Your task to perform on an android device: Open Google Maps and go to "Timeline" Image 0: 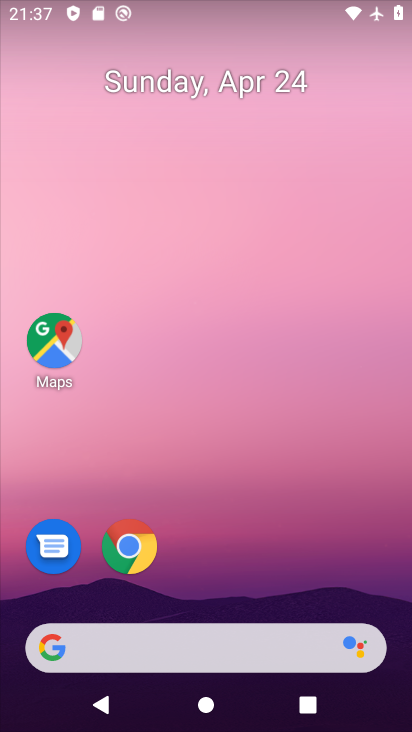
Step 0: click (289, 235)
Your task to perform on an android device: Open Google Maps and go to "Timeline" Image 1: 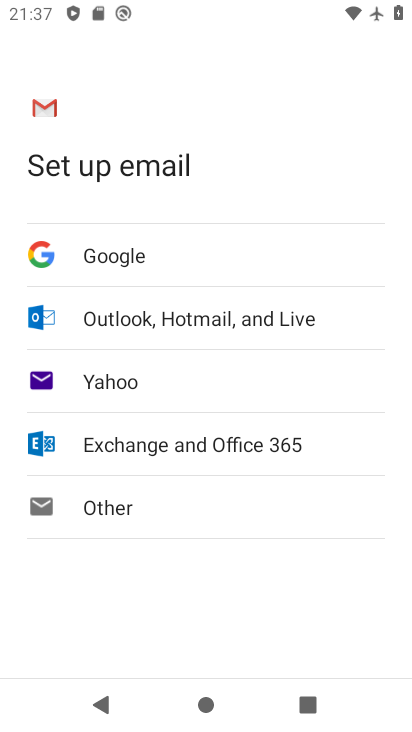
Step 1: press home button
Your task to perform on an android device: Open Google Maps and go to "Timeline" Image 2: 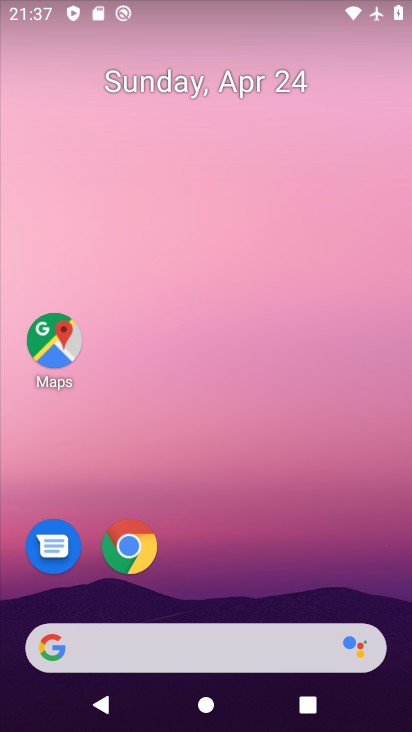
Step 2: drag from (213, 590) to (250, 258)
Your task to perform on an android device: Open Google Maps and go to "Timeline" Image 3: 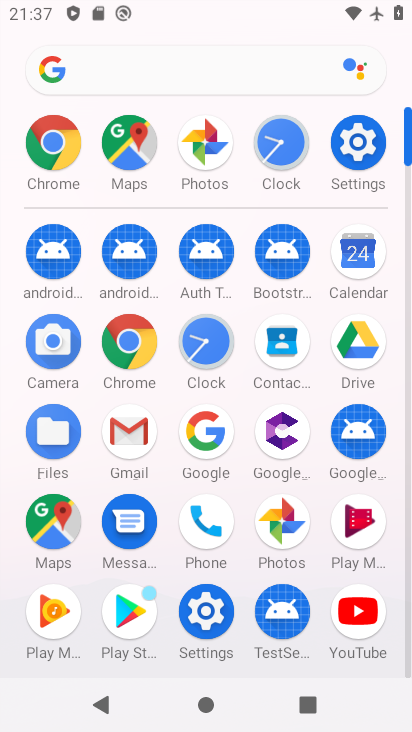
Step 3: click (56, 513)
Your task to perform on an android device: Open Google Maps and go to "Timeline" Image 4: 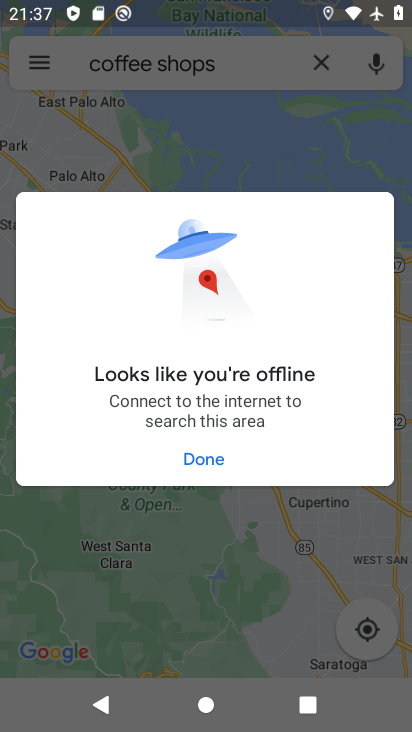
Step 4: click (193, 456)
Your task to perform on an android device: Open Google Maps and go to "Timeline" Image 5: 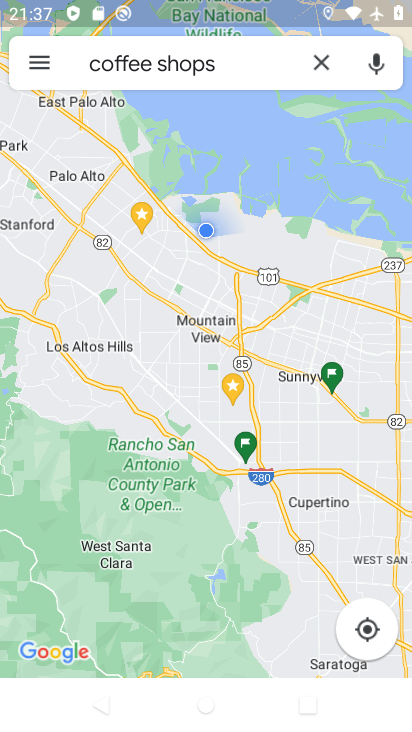
Step 5: click (37, 65)
Your task to perform on an android device: Open Google Maps and go to "Timeline" Image 6: 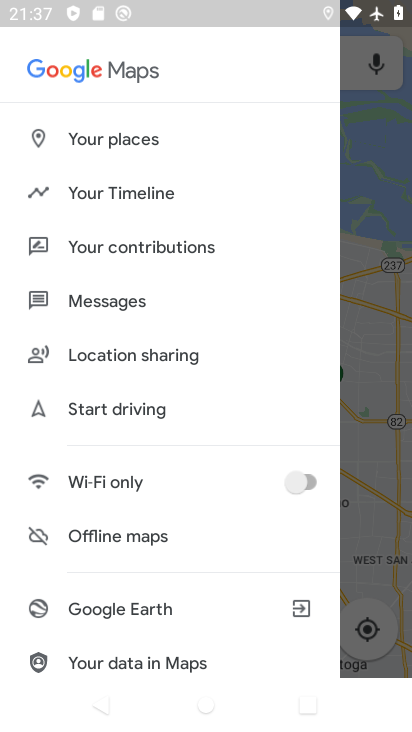
Step 6: click (146, 200)
Your task to perform on an android device: Open Google Maps and go to "Timeline" Image 7: 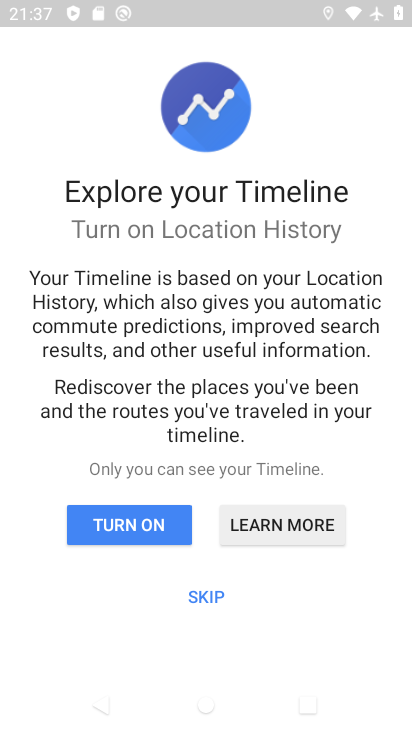
Step 7: click (205, 589)
Your task to perform on an android device: Open Google Maps and go to "Timeline" Image 8: 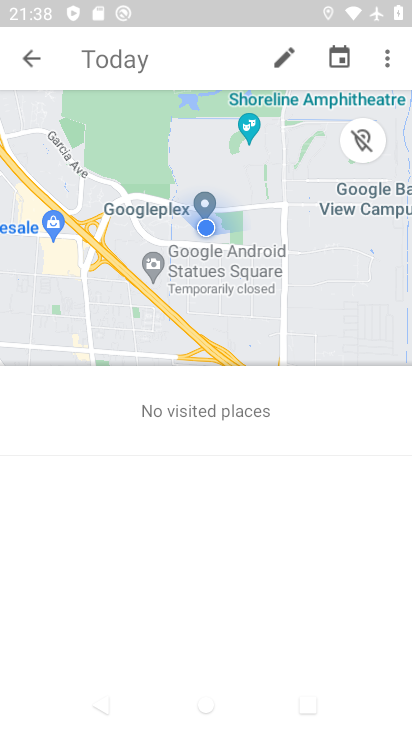
Step 8: task complete